Your task to perform on an android device: check storage Image 0: 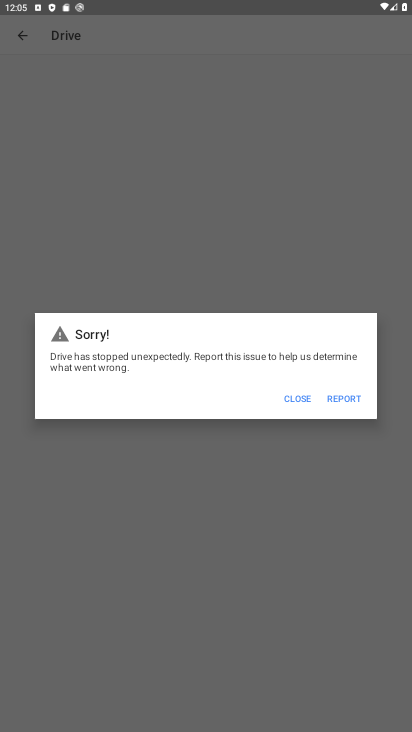
Step 0: press home button
Your task to perform on an android device: check storage Image 1: 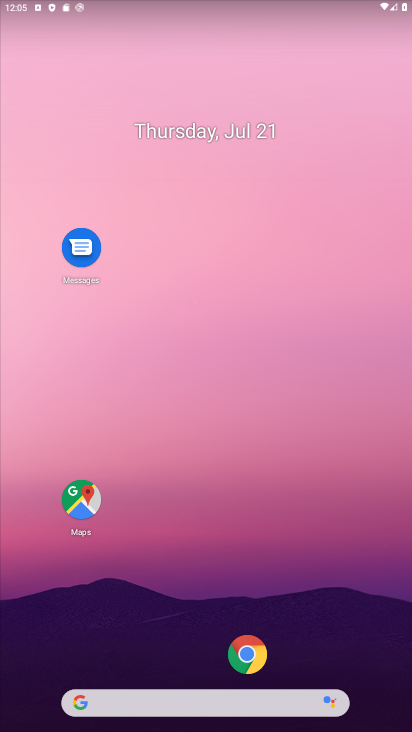
Step 1: drag from (174, 636) to (193, 100)
Your task to perform on an android device: check storage Image 2: 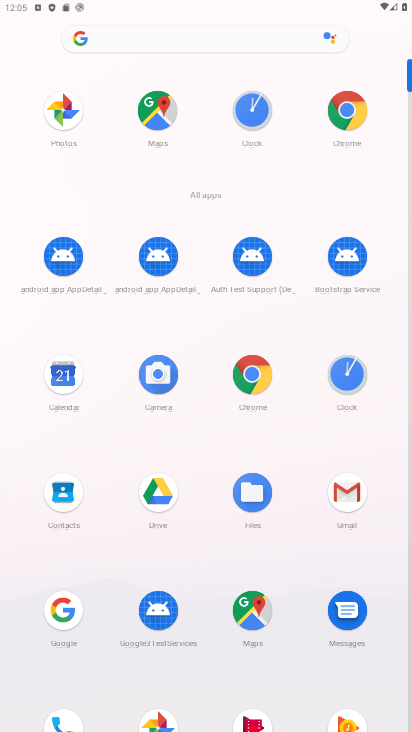
Step 2: drag from (203, 565) to (140, 147)
Your task to perform on an android device: check storage Image 3: 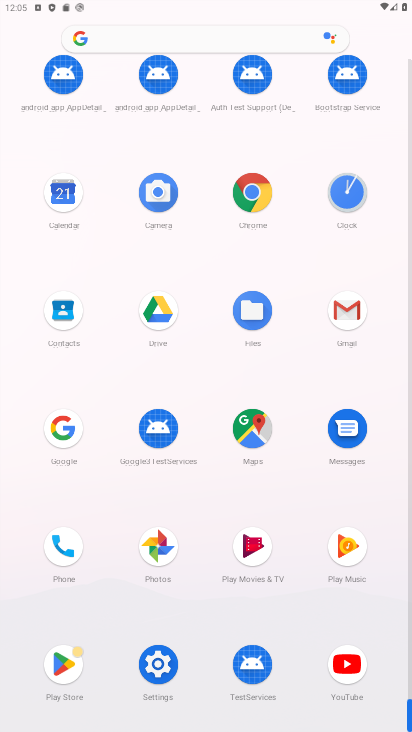
Step 3: click (160, 670)
Your task to perform on an android device: check storage Image 4: 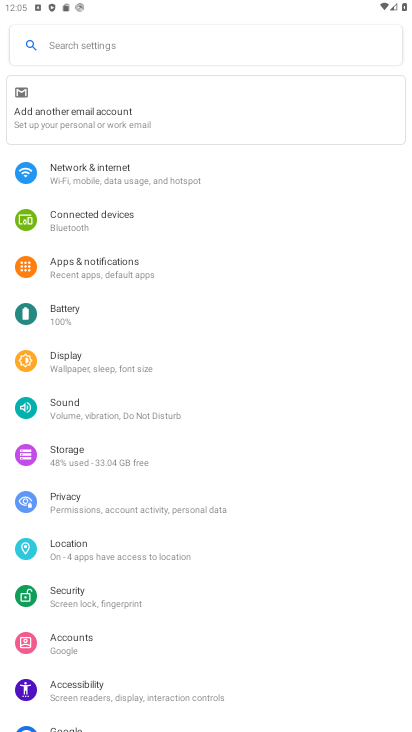
Step 4: click (102, 462)
Your task to perform on an android device: check storage Image 5: 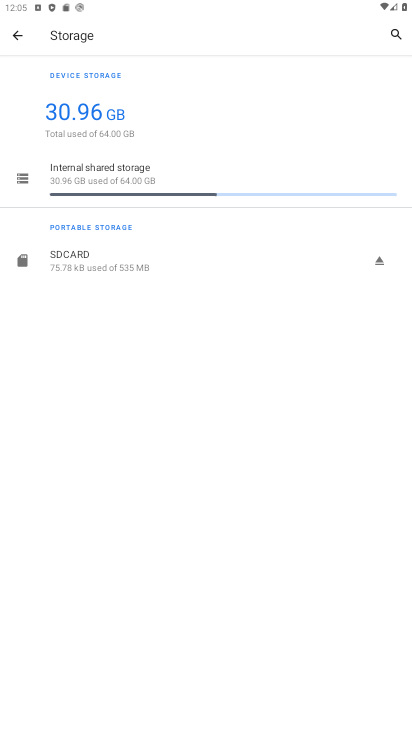
Step 5: task complete